Your task to perform on an android device: Search for Mexican restaurants on Maps Image 0: 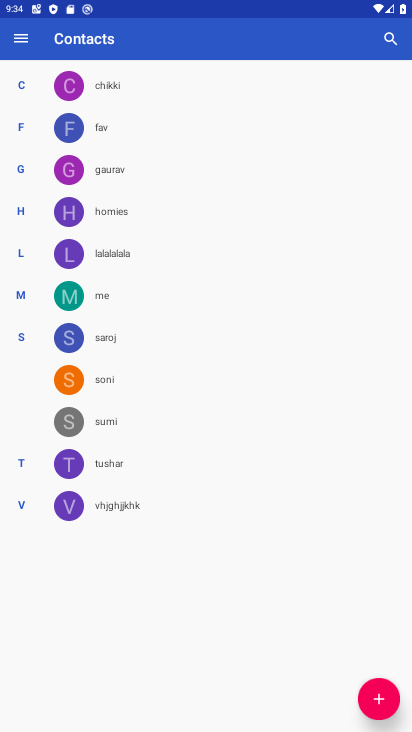
Step 0: press home button
Your task to perform on an android device: Search for Mexican restaurants on Maps Image 1: 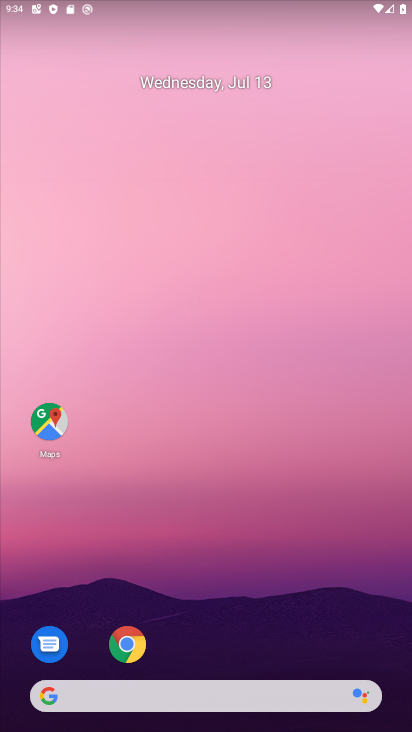
Step 1: drag from (235, 645) to (326, 180)
Your task to perform on an android device: Search for Mexican restaurants on Maps Image 2: 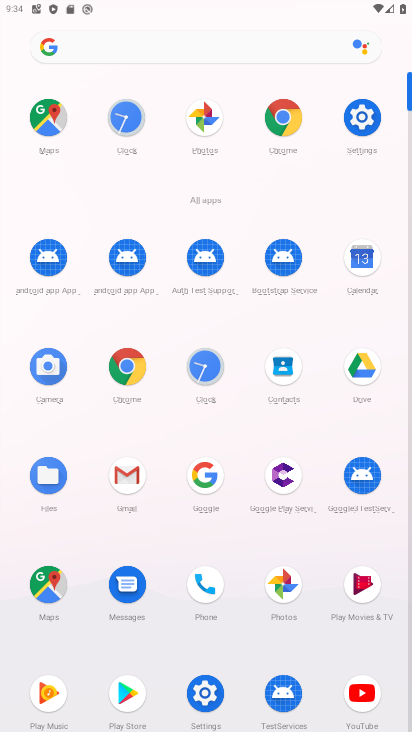
Step 2: click (40, 589)
Your task to perform on an android device: Search for Mexican restaurants on Maps Image 3: 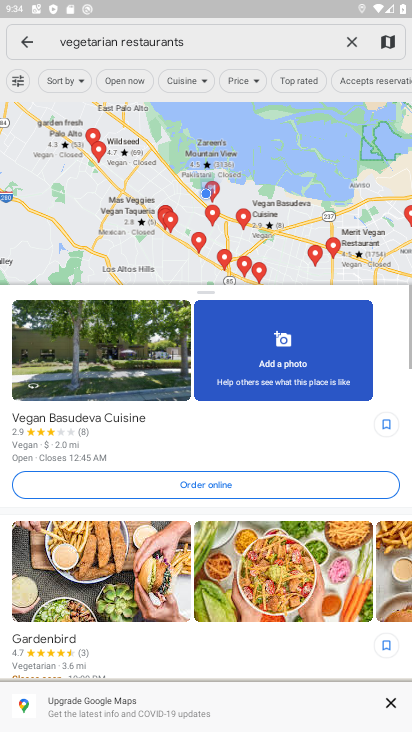
Step 3: click (353, 36)
Your task to perform on an android device: Search for Mexican restaurants on Maps Image 4: 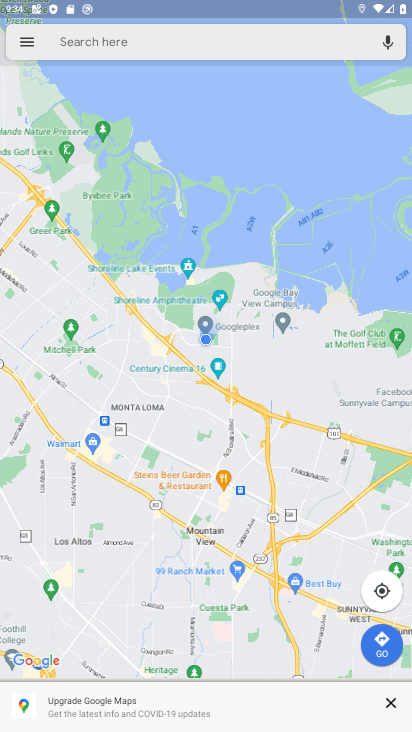
Step 4: click (172, 42)
Your task to perform on an android device: Search for Mexican restaurants on Maps Image 5: 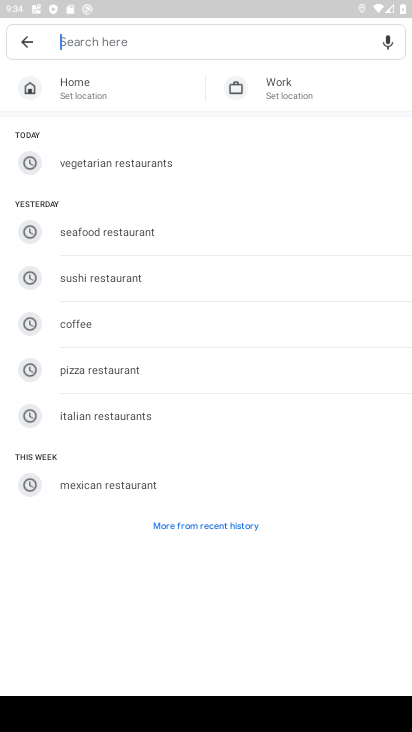
Step 5: type "Mexican restaurants"
Your task to perform on an android device: Search for Mexican restaurants on Maps Image 6: 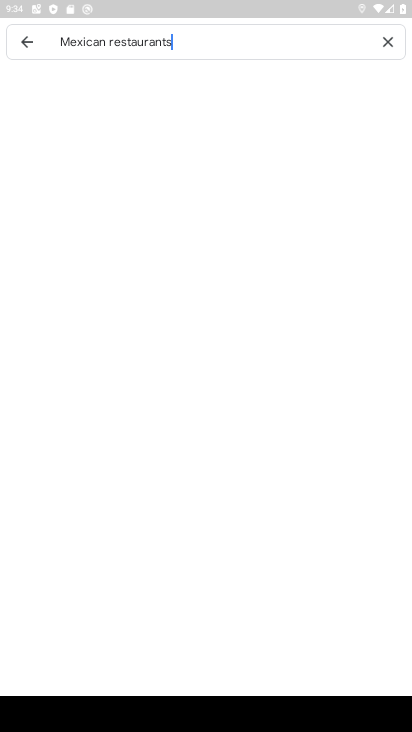
Step 6: type ""
Your task to perform on an android device: Search for Mexican restaurants on Maps Image 7: 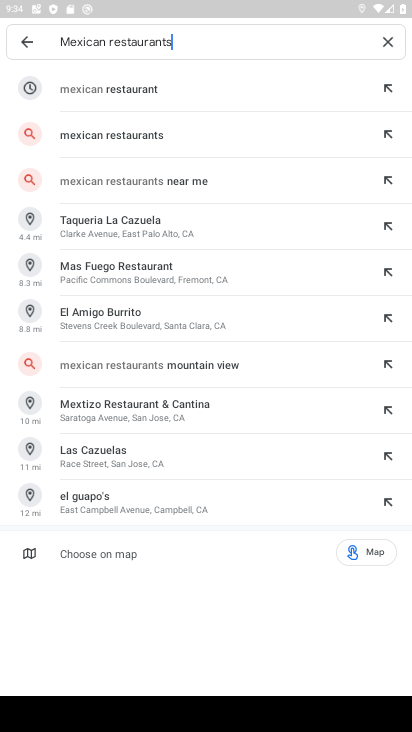
Step 7: click (165, 97)
Your task to perform on an android device: Search for Mexican restaurants on Maps Image 8: 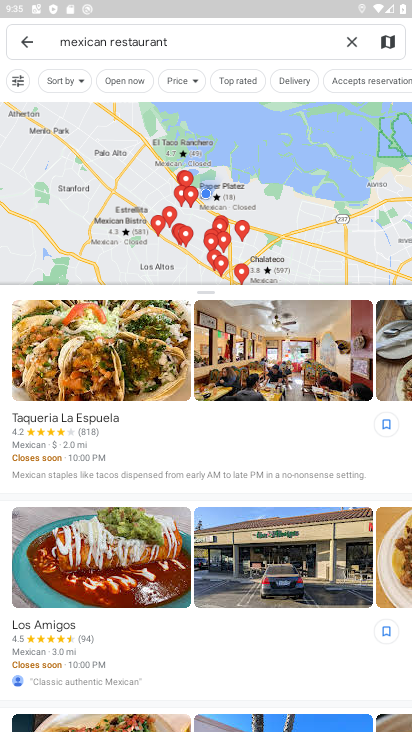
Step 8: task complete